Your task to perform on an android device: Show the shopping cart on costco.com. Search for dell alienware on costco.com, select the first entry, and add it to the cart. Image 0: 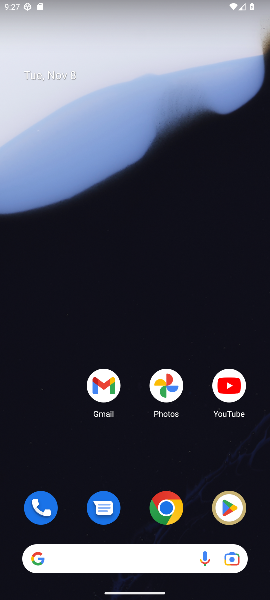
Step 0: click (165, 502)
Your task to perform on an android device: Show the shopping cart on costco.com. Search for dell alienware on costco.com, select the first entry, and add it to the cart. Image 1: 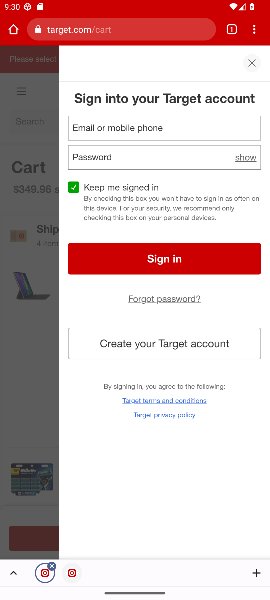
Step 1: click (87, 31)
Your task to perform on an android device: Show the shopping cart on costco.com. Search for dell alienware on costco.com, select the first entry, and add it to the cart. Image 2: 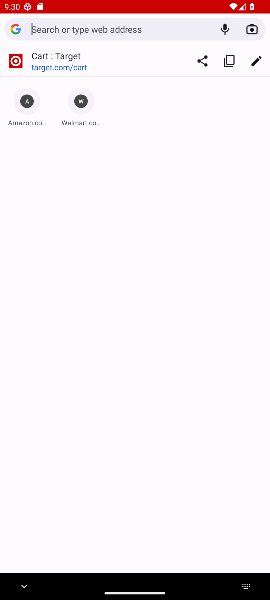
Step 2: type "costco"
Your task to perform on an android device: Show the shopping cart on costco.com. Search for dell alienware on costco.com, select the first entry, and add it to the cart. Image 3: 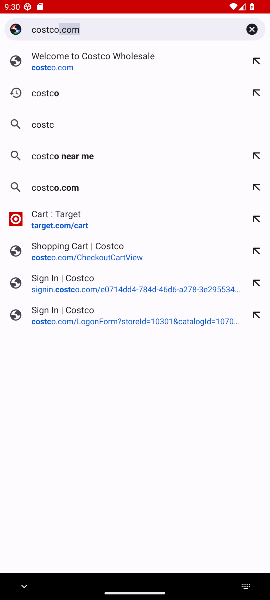
Step 3: type ""
Your task to perform on an android device: Show the shopping cart on costco.com. Search for dell alienware on costco.com, select the first entry, and add it to the cart. Image 4: 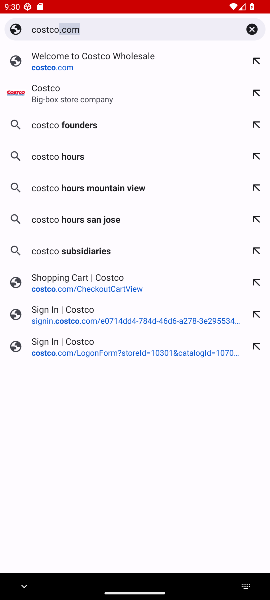
Step 4: click (51, 89)
Your task to perform on an android device: Show the shopping cart on costco.com. Search for dell alienware on costco.com, select the first entry, and add it to the cart. Image 5: 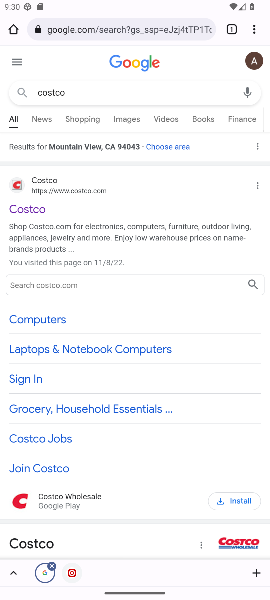
Step 5: click (36, 208)
Your task to perform on an android device: Show the shopping cart on costco.com. Search for dell alienware on costco.com, select the first entry, and add it to the cart. Image 6: 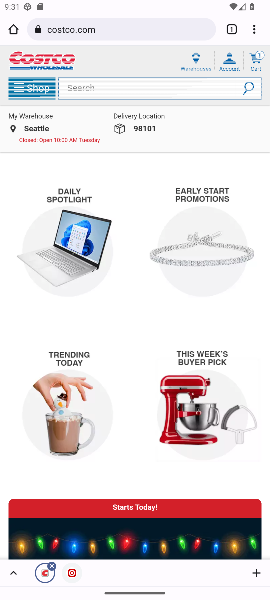
Step 6: click (98, 86)
Your task to perform on an android device: Show the shopping cart on costco.com. Search for dell alienware on costco.com, select the first entry, and add it to the cart. Image 7: 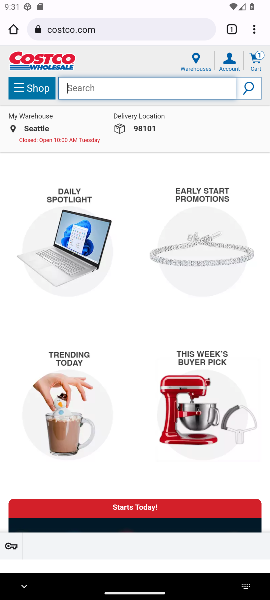
Step 7: type "dell alienware"
Your task to perform on an android device: Show the shopping cart on costco.com. Search for dell alienware on costco.com, select the first entry, and add it to the cart. Image 8: 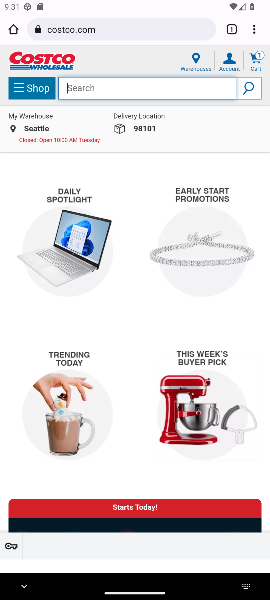
Step 8: type ""
Your task to perform on an android device: Show the shopping cart on costco.com. Search for dell alienware on costco.com, select the first entry, and add it to the cart. Image 9: 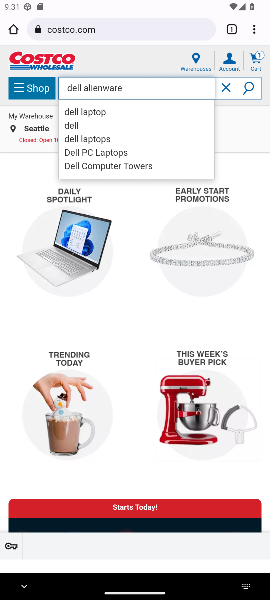
Step 9: click (88, 136)
Your task to perform on an android device: Show the shopping cart on costco.com. Search for dell alienware on costco.com, select the first entry, and add it to the cart. Image 10: 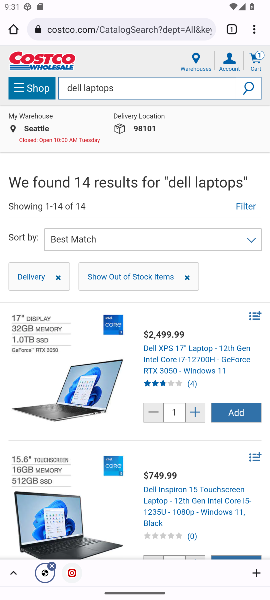
Step 10: click (59, 520)
Your task to perform on an android device: Show the shopping cart on costco.com. Search for dell alienware on costco.com, select the first entry, and add it to the cart. Image 11: 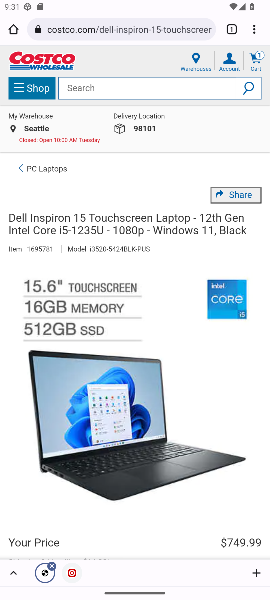
Step 11: drag from (88, 389) to (127, 40)
Your task to perform on an android device: Show the shopping cart on costco.com. Search for dell alienware on costco.com, select the first entry, and add it to the cart. Image 12: 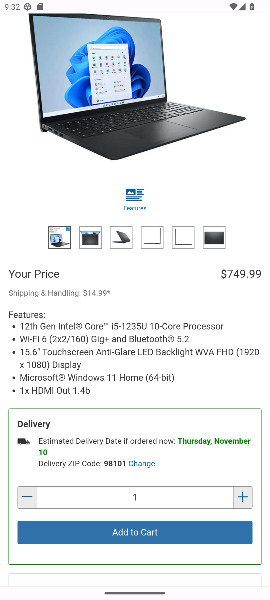
Step 12: click (116, 533)
Your task to perform on an android device: Show the shopping cart on costco.com. Search for dell alienware on costco.com, select the first entry, and add it to the cart. Image 13: 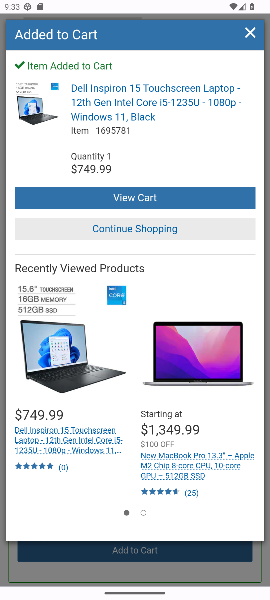
Step 13: click (123, 198)
Your task to perform on an android device: Show the shopping cart on costco.com. Search for dell alienware on costco.com, select the first entry, and add it to the cart. Image 14: 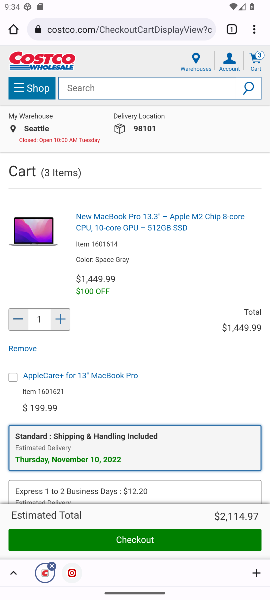
Step 14: click (130, 541)
Your task to perform on an android device: Show the shopping cart on costco.com. Search for dell alienware on costco.com, select the first entry, and add it to the cart. Image 15: 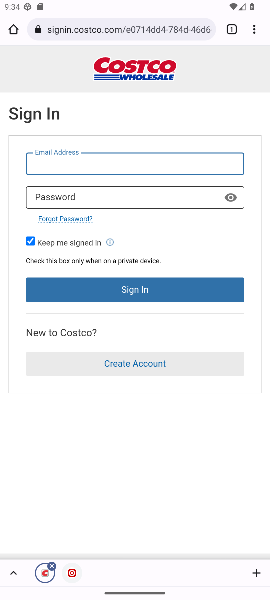
Step 15: task complete